Your task to perform on an android device: turn on showing notifications on the lock screen Image 0: 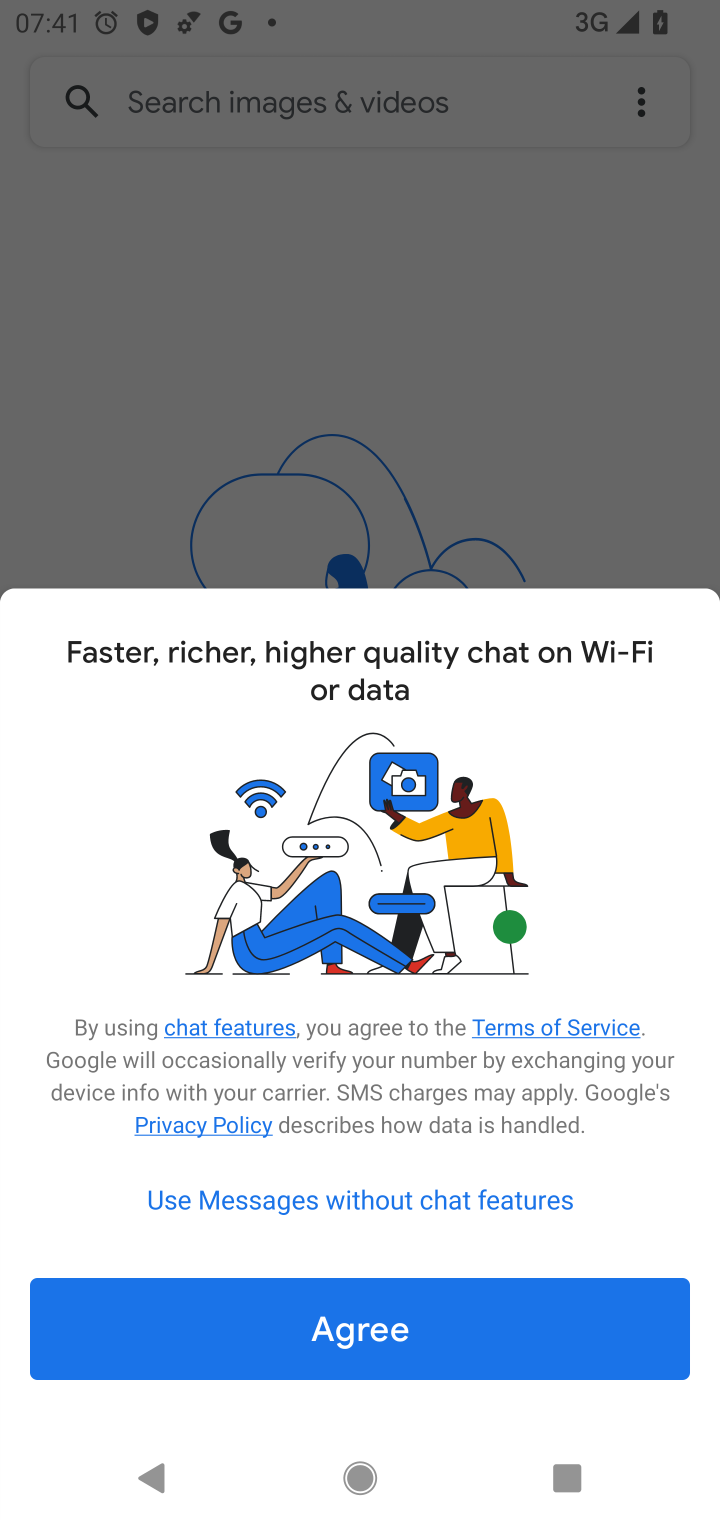
Step 0: press home button
Your task to perform on an android device: turn on showing notifications on the lock screen Image 1: 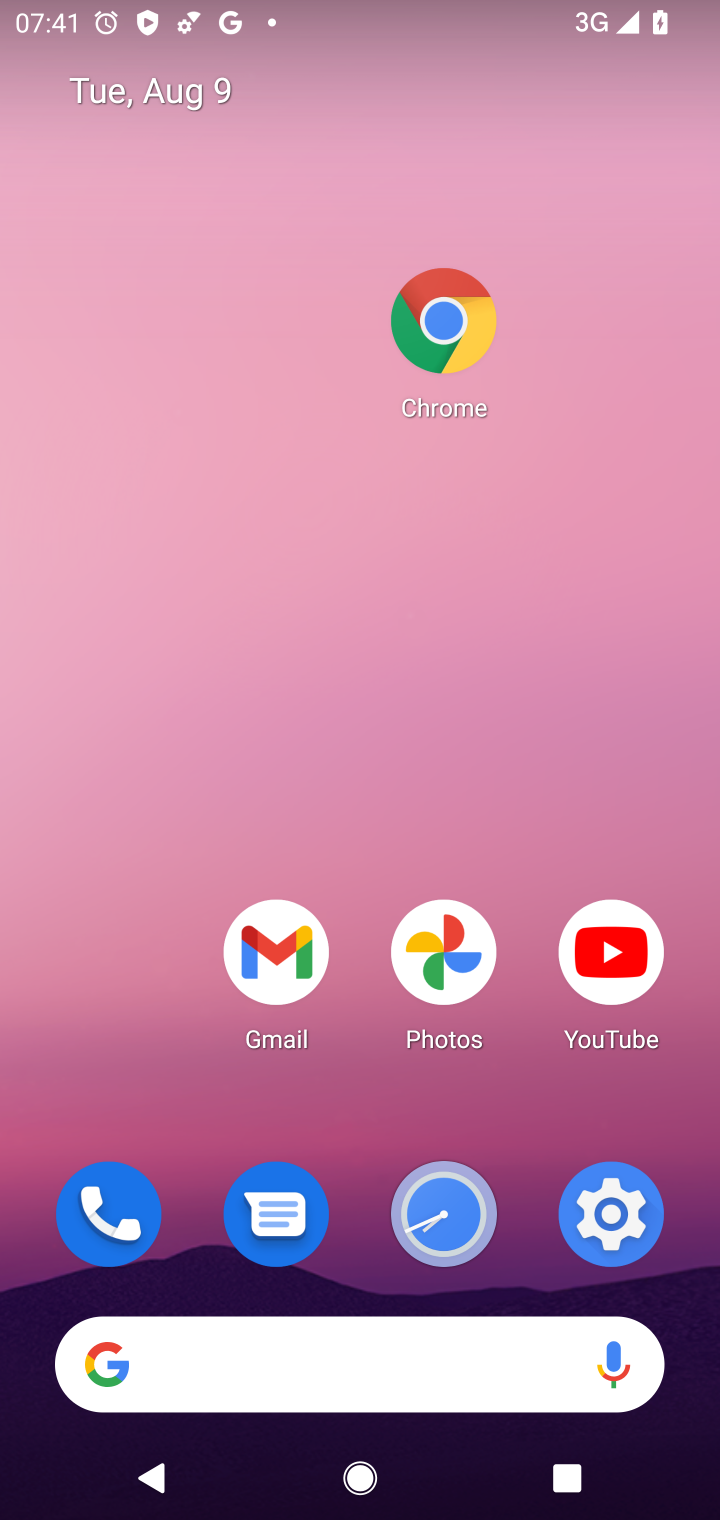
Step 1: drag from (525, 1410) to (612, 453)
Your task to perform on an android device: turn on showing notifications on the lock screen Image 2: 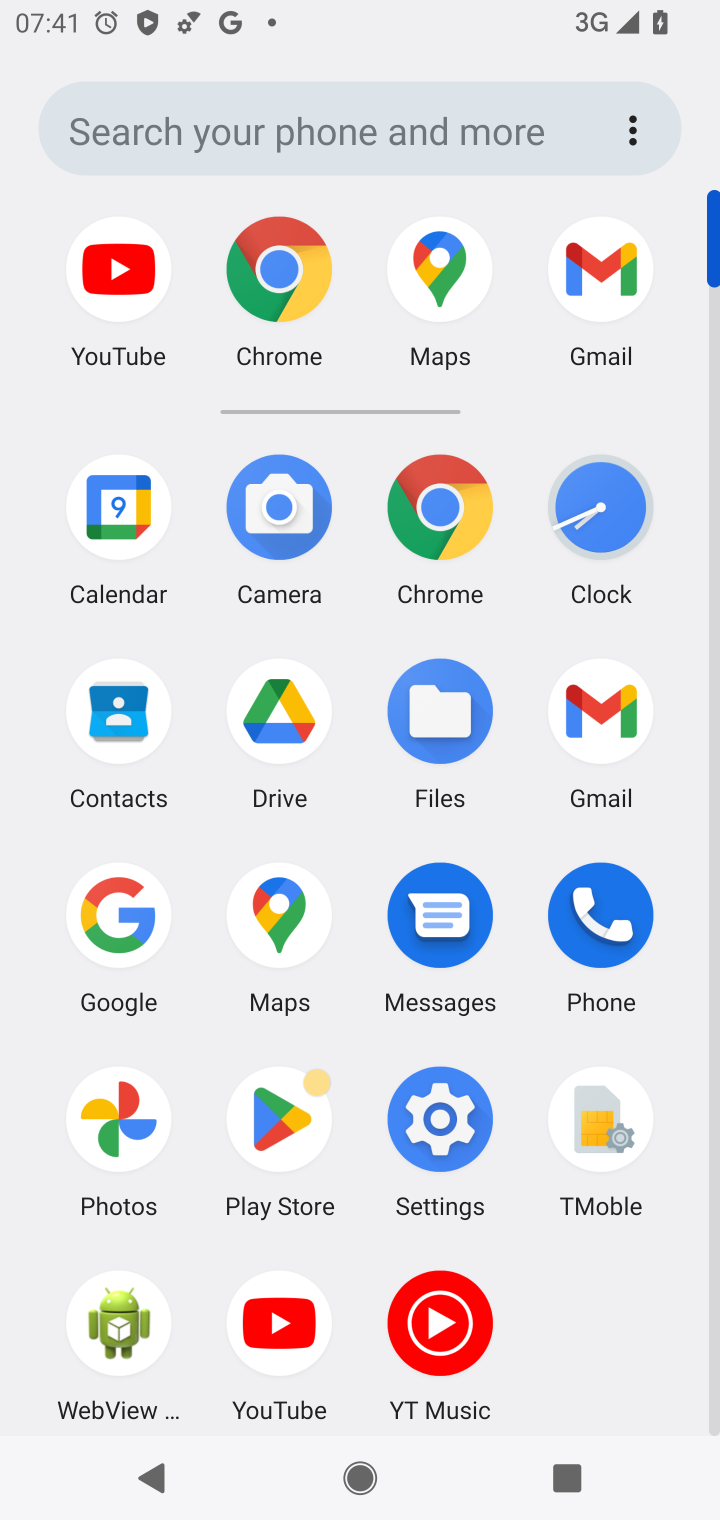
Step 2: click (426, 1148)
Your task to perform on an android device: turn on showing notifications on the lock screen Image 3: 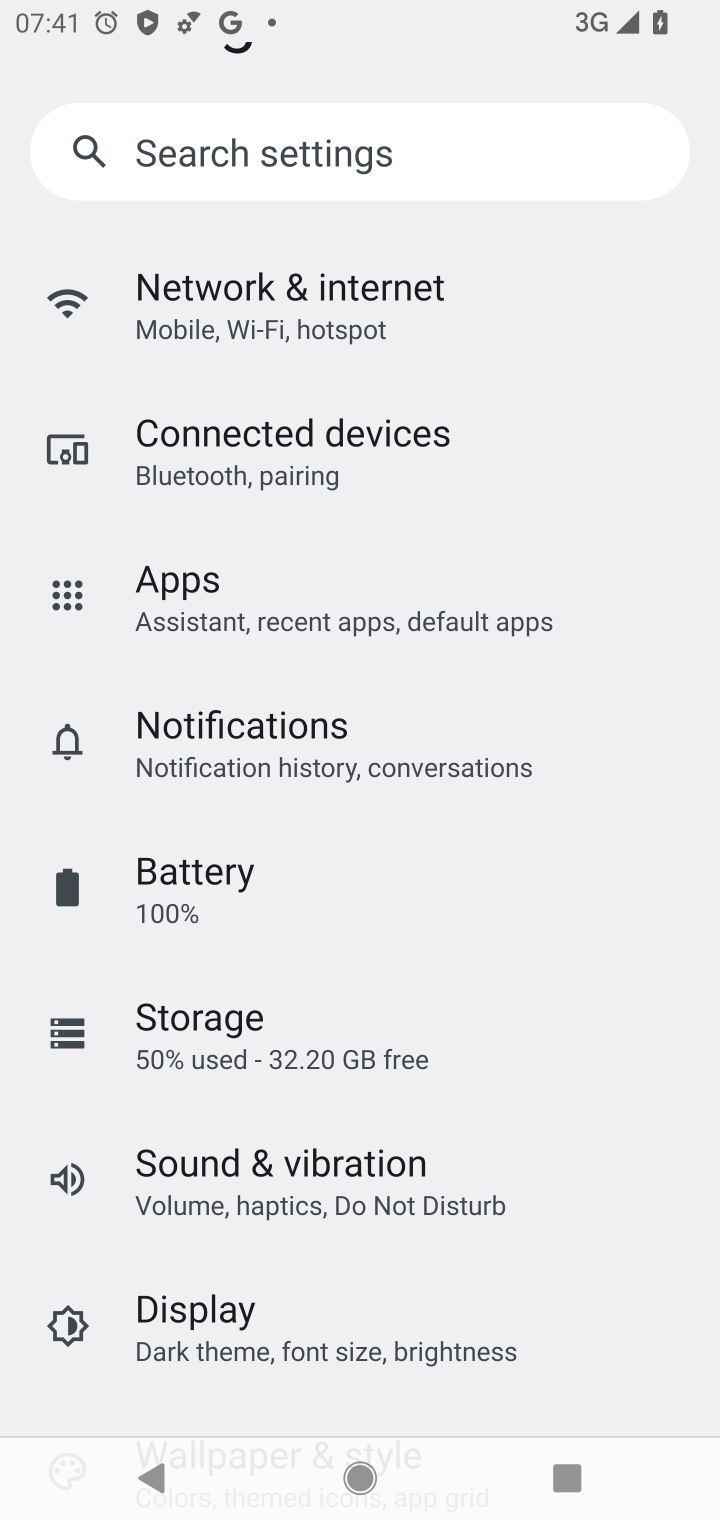
Step 3: click (232, 159)
Your task to perform on an android device: turn on showing notifications on the lock screen Image 4: 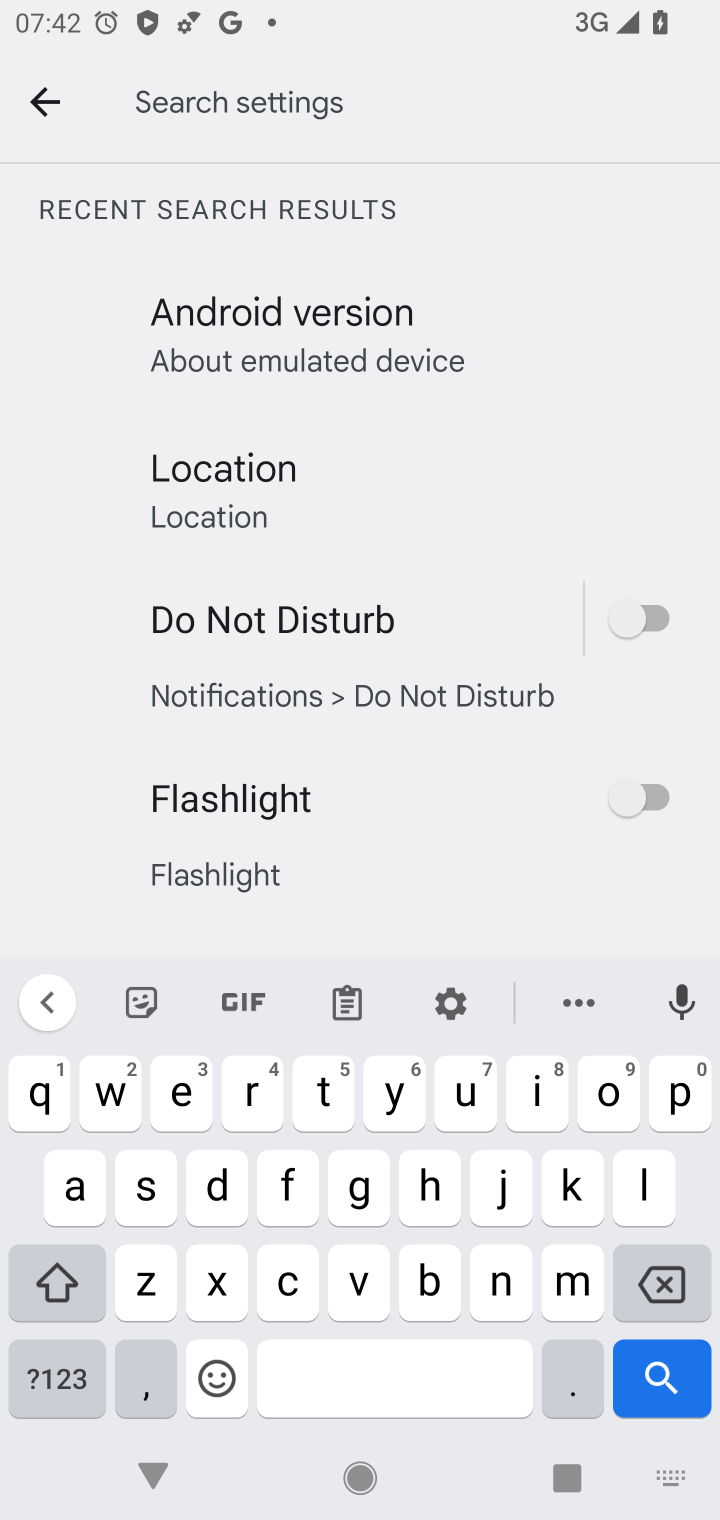
Step 4: click (634, 1201)
Your task to perform on an android device: turn on showing notifications on the lock screen Image 5: 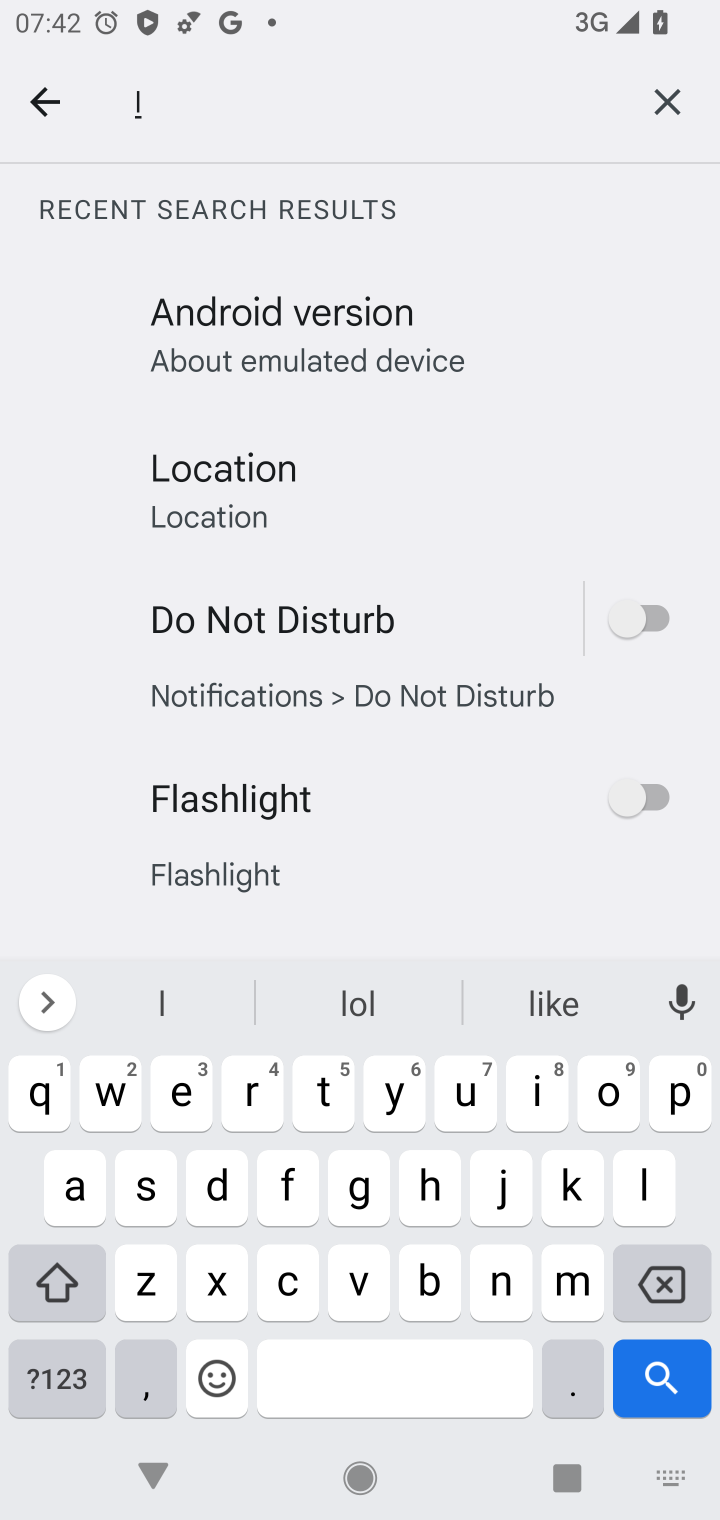
Step 5: click (596, 1075)
Your task to perform on an android device: turn on showing notifications on the lock screen Image 6: 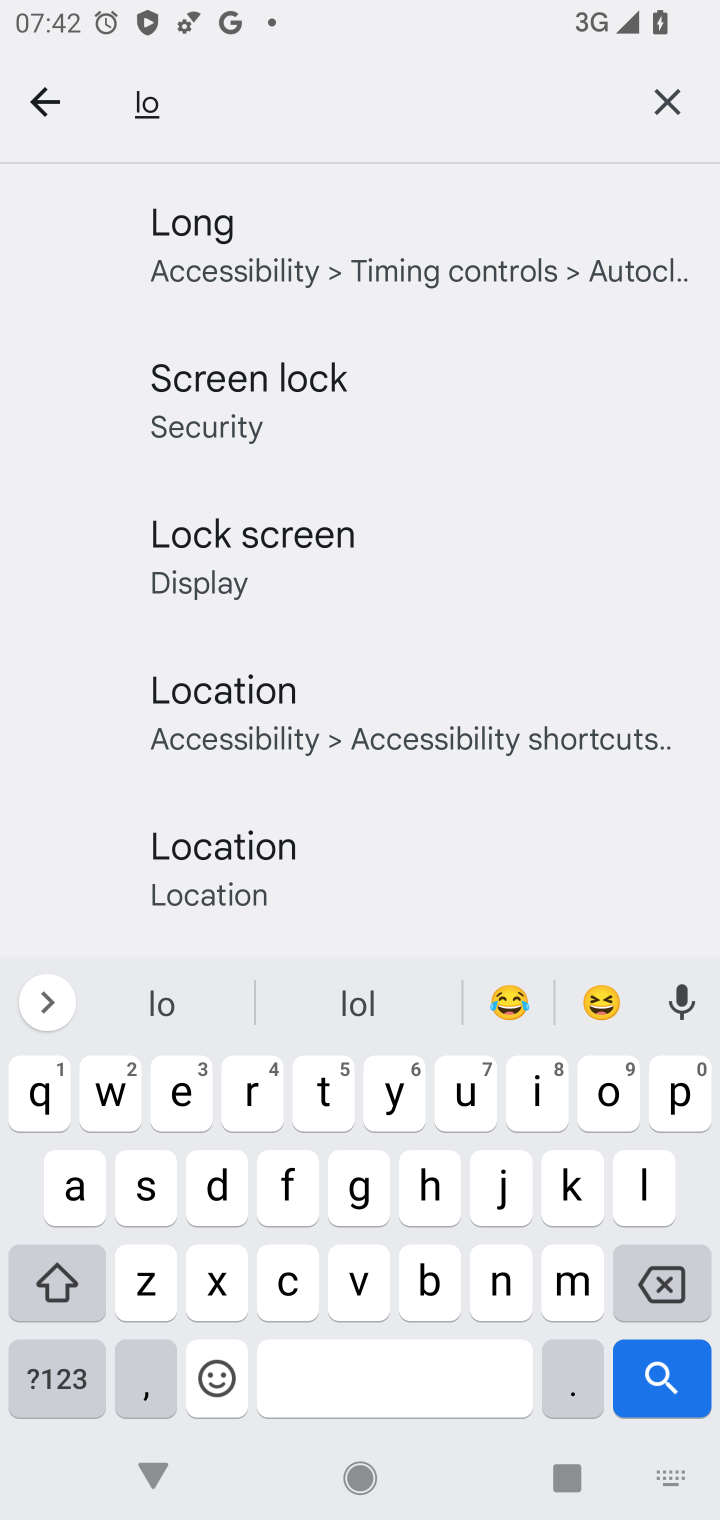
Step 6: click (289, 553)
Your task to perform on an android device: turn on showing notifications on the lock screen Image 7: 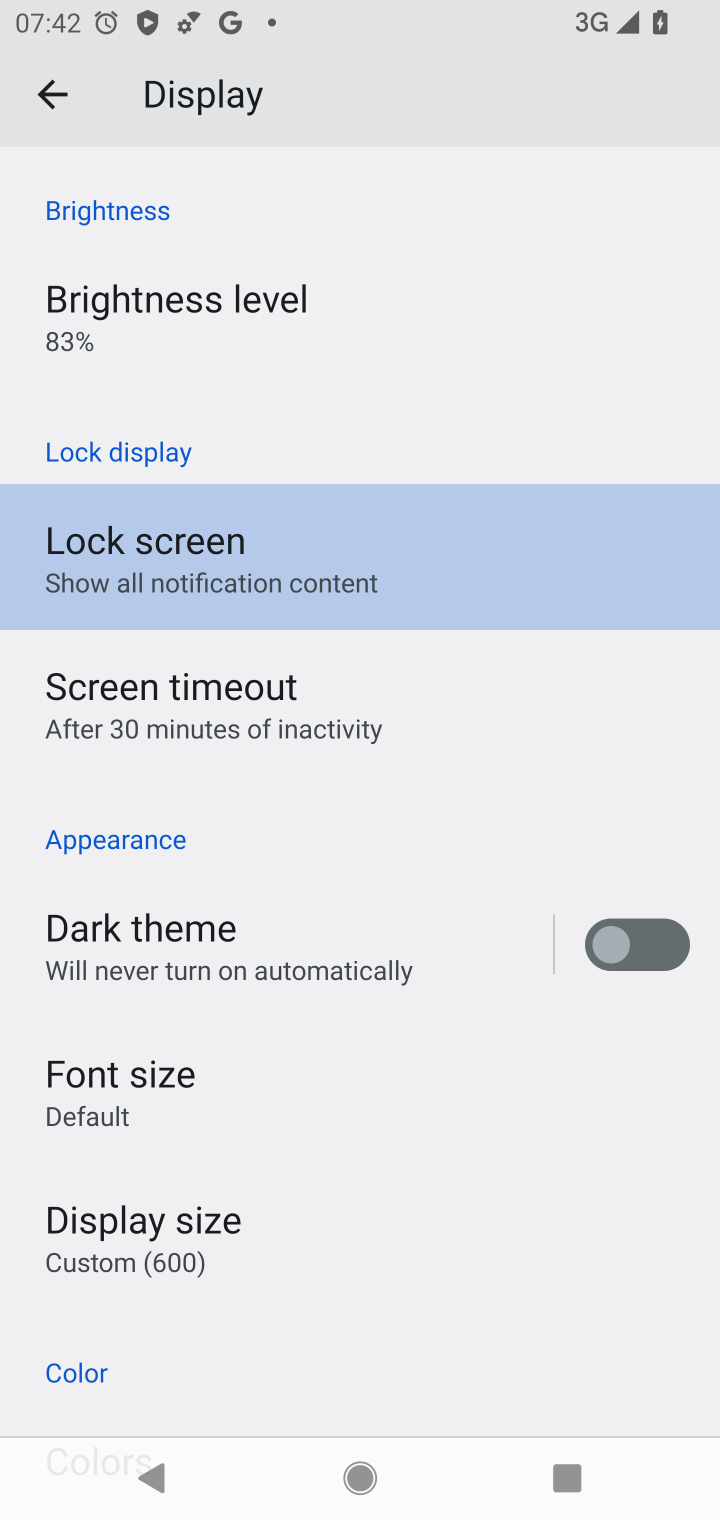
Step 7: drag from (268, 1314) to (181, 564)
Your task to perform on an android device: turn on showing notifications on the lock screen Image 8: 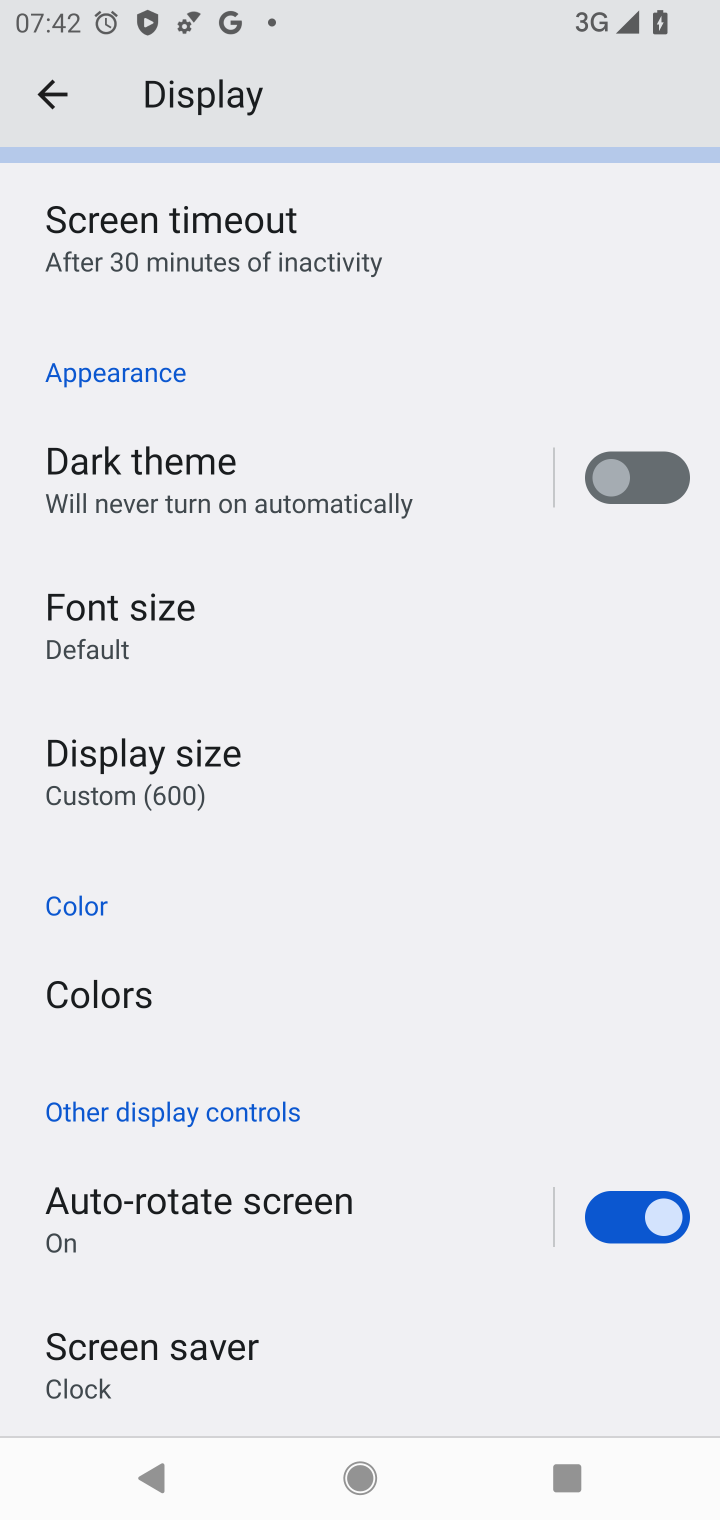
Step 8: drag from (317, 1120) to (269, 618)
Your task to perform on an android device: turn on showing notifications on the lock screen Image 9: 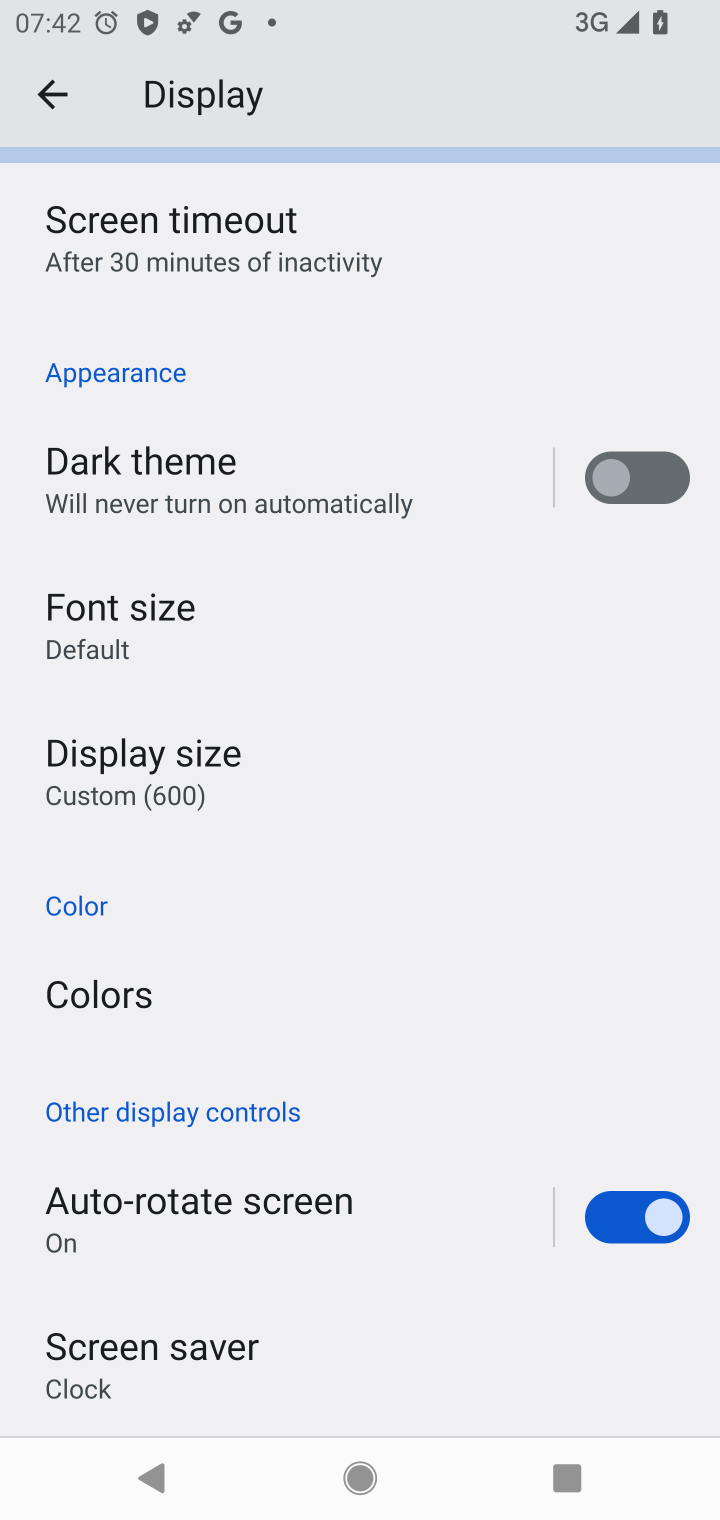
Step 9: drag from (216, 594) to (148, 1341)
Your task to perform on an android device: turn on showing notifications on the lock screen Image 10: 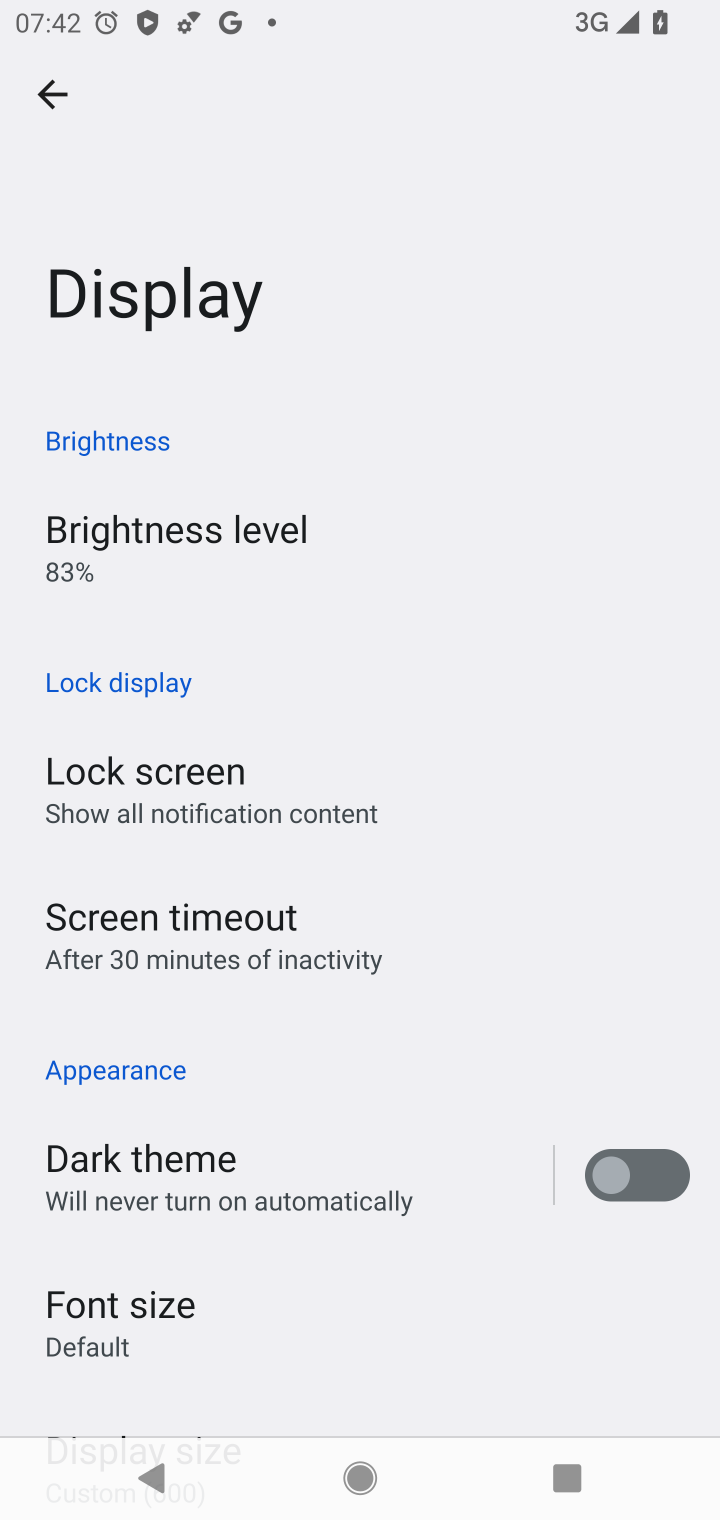
Step 10: click (244, 796)
Your task to perform on an android device: turn on showing notifications on the lock screen Image 11: 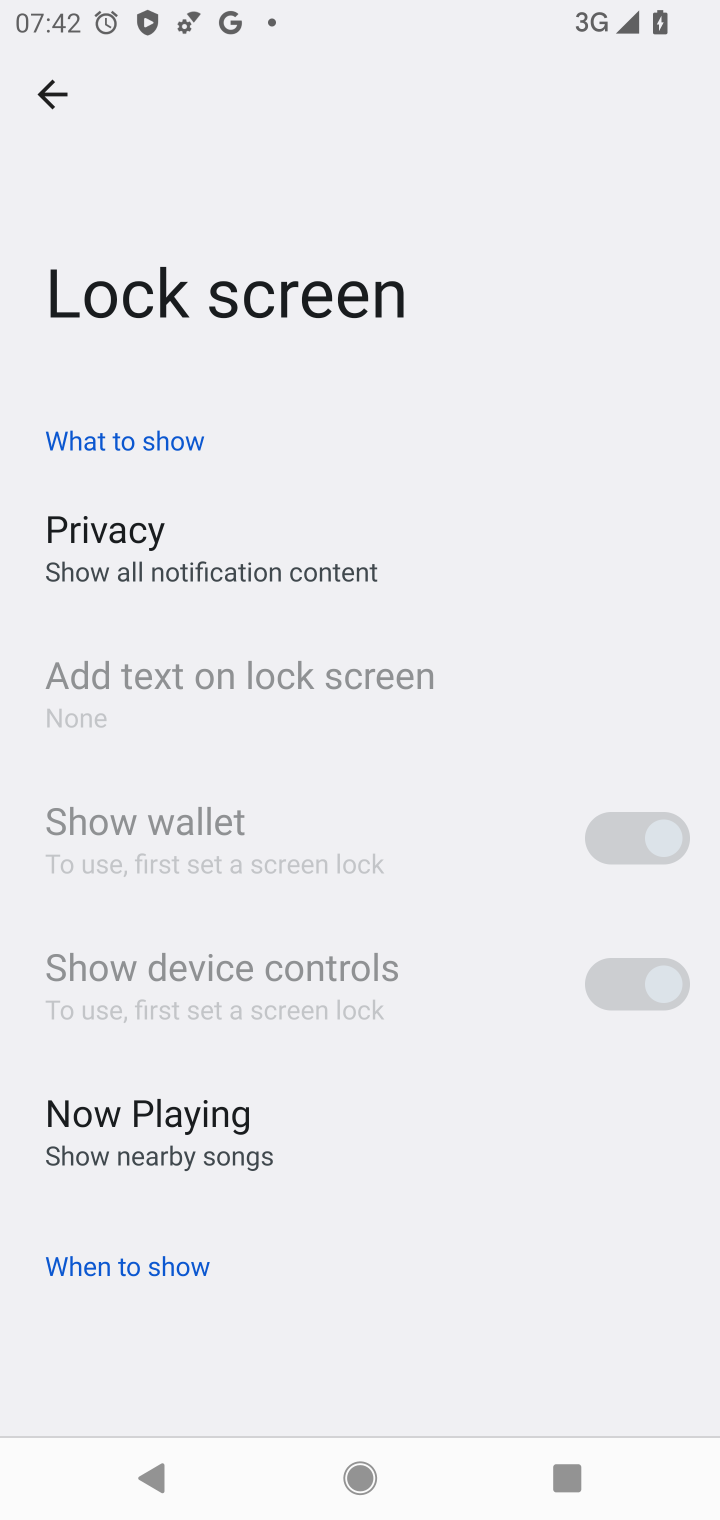
Step 11: drag from (344, 1166) to (345, 781)
Your task to perform on an android device: turn on showing notifications on the lock screen Image 12: 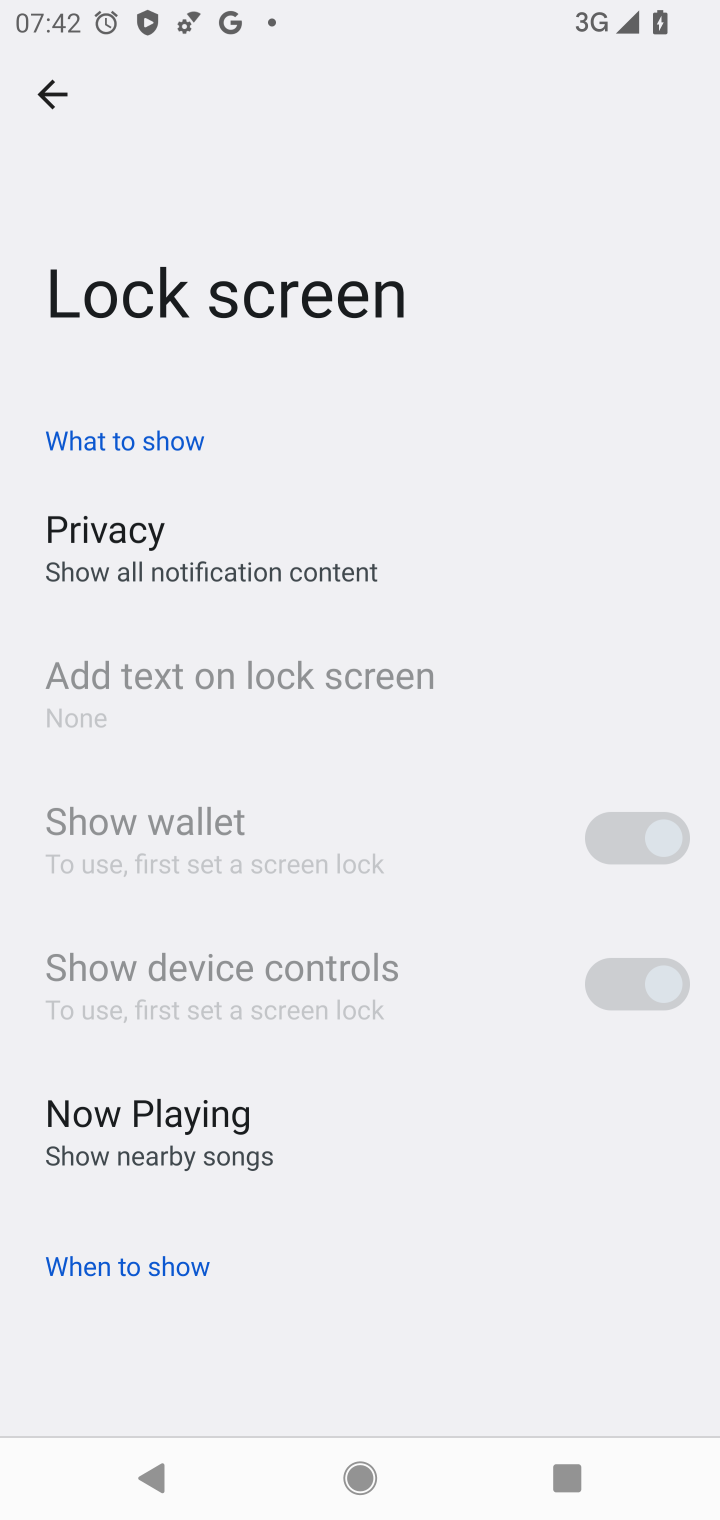
Step 12: click (237, 539)
Your task to perform on an android device: turn on showing notifications on the lock screen Image 13: 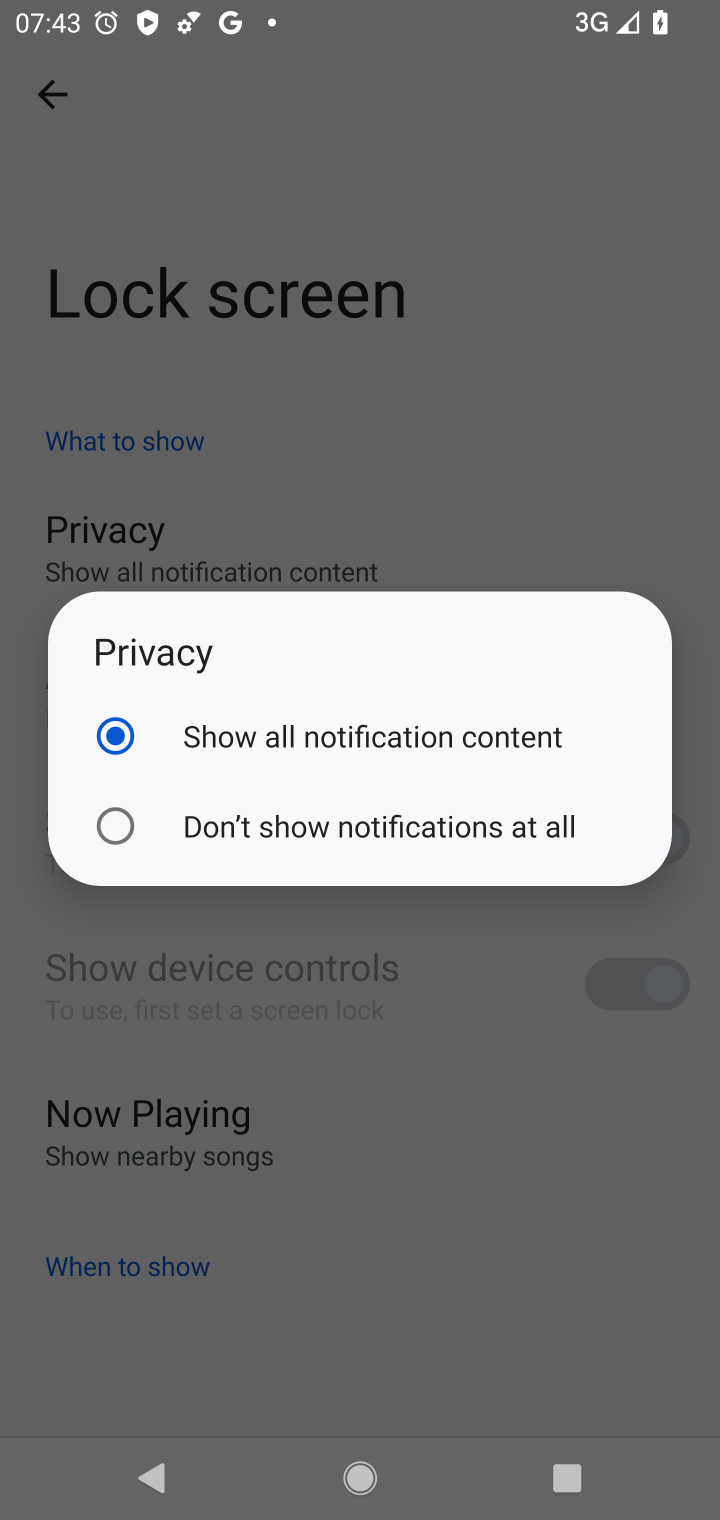
Step 13: task complete